Your task to perform on an android device: turn on location history Image 0: 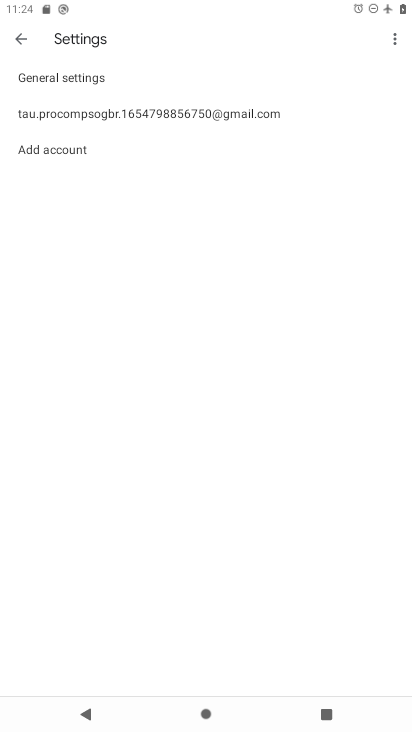
Step 0: press home button
Your task to perform on an android device: turn on location history Image 1: 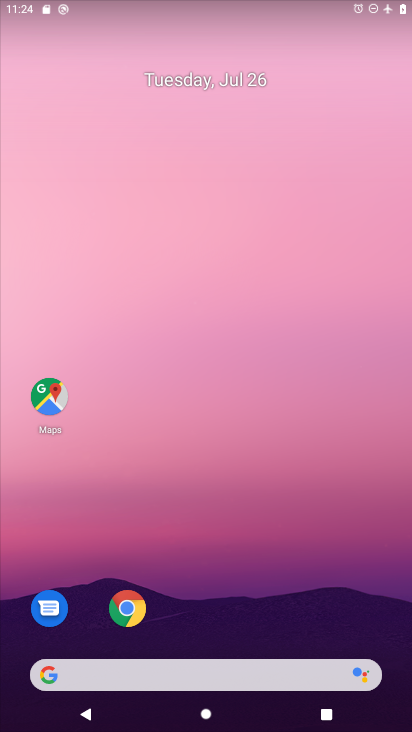
Step 1: drag from (355, 571) to (297, 68)
Your task to perform on an android device: turn on location history Image 2: 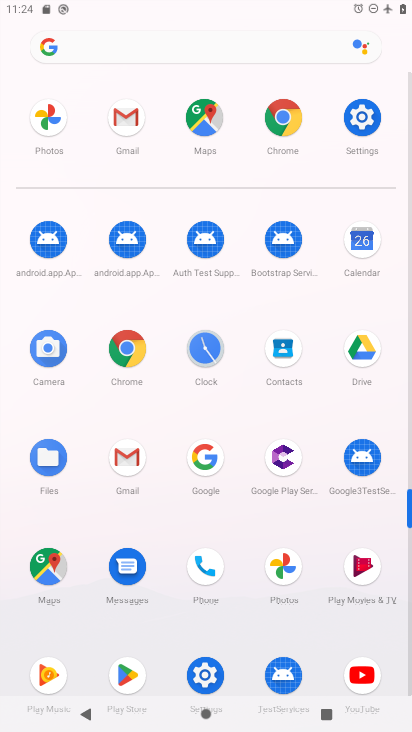
Step 2: click (203, 122)
Your task to perform on an android device: turn on location history Image 3: 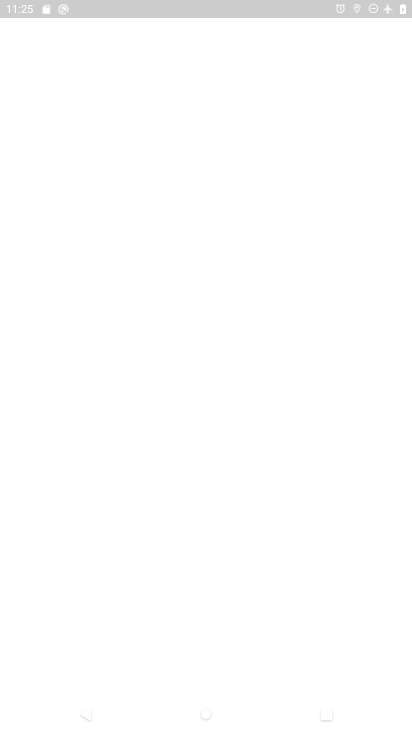
Step 3: task complete